Your task to perform on an android device: turn on the 24-hour format for clock Image 0: 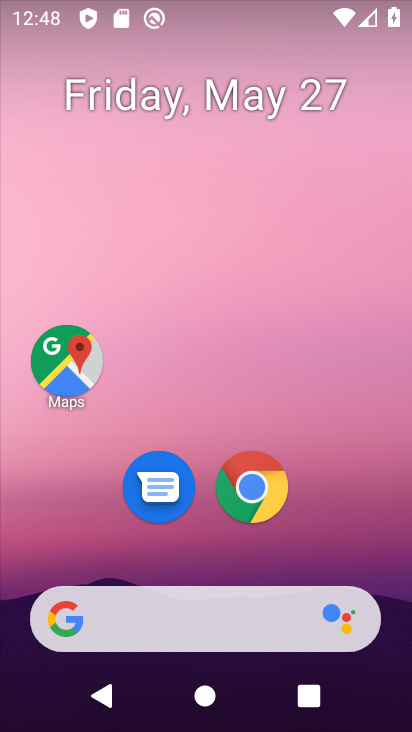
Step 0: drag from (157, 725) to (159, 98)
Your task to perform on an android device: turn on the 24-hour format for clock Image 1: 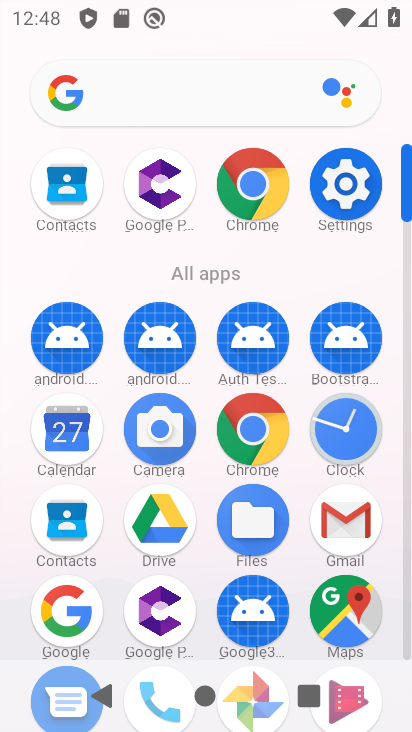
Step 1: click (342, 202)
Your task to perform on an android device: turn on the 24-hour format for clock Image 2: 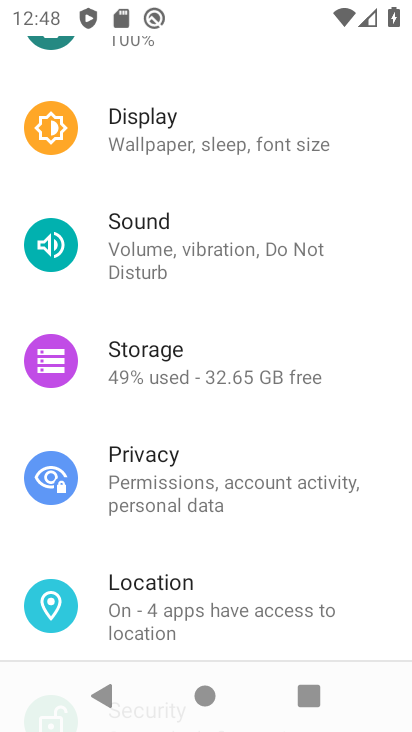
Step 2: drag from (338, 630) to (387, 94)
Your task to perform on an android device: turn on the 24-hour format for clock Image 3: 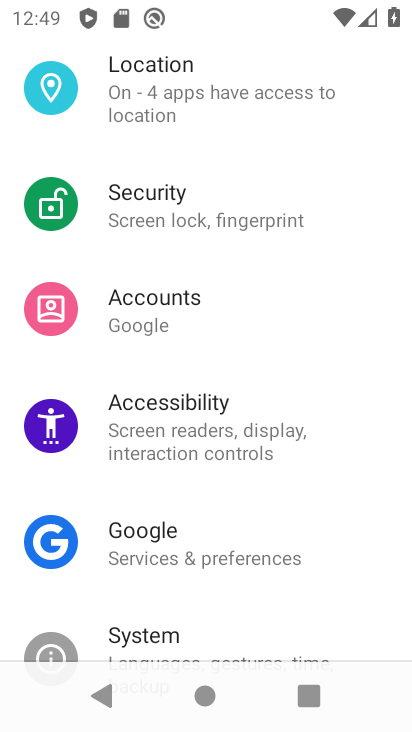
Step 3: drag from (364, 595) to (334, 324)
Your task to perform on an android device: turn on the 24-hour format for clock Image 4: 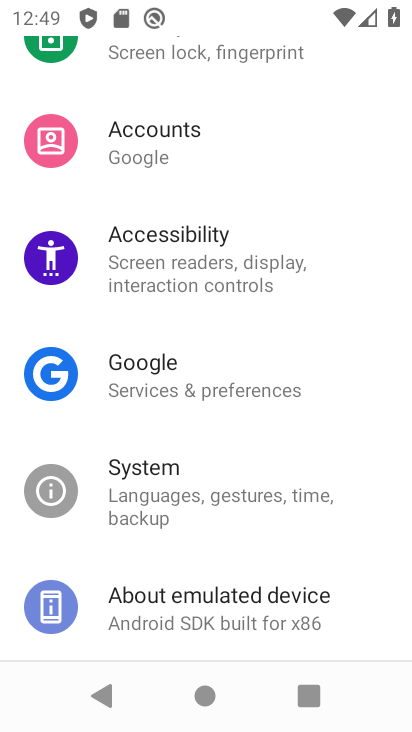
Step 4: click (196, 505)
Your task to perform on an android device: turn on the 24-hour format for clock Image 5: 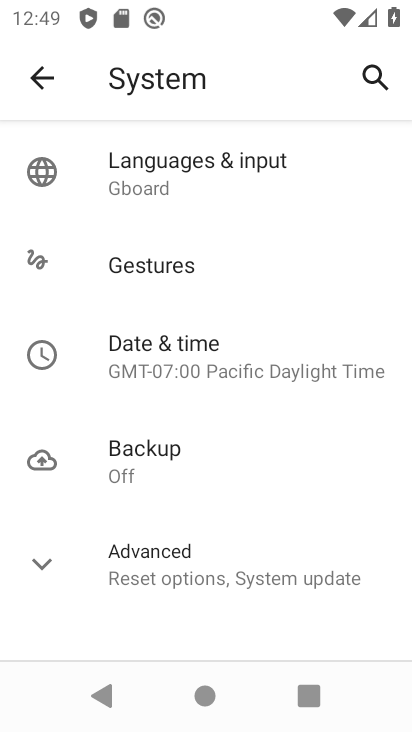
Step 5: click (165, 350)
Your task to perform on an android device: turn on the 24-hour format for clock Image 6: 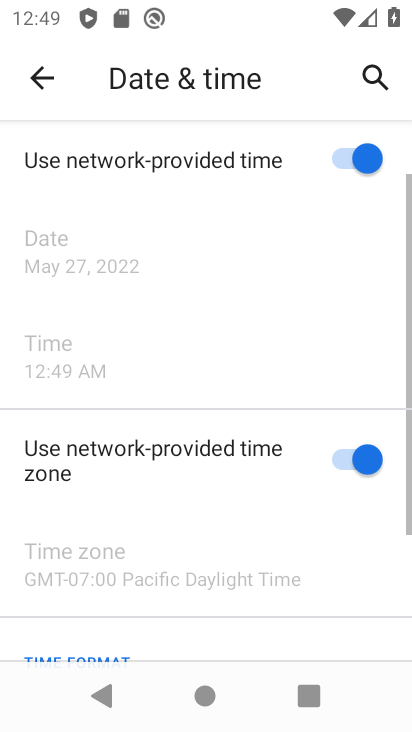
Step 6: drag from (276, 596) to (270, 206)
Your task to perform on an android device: turn on the 24-hour format for clock Image 7: 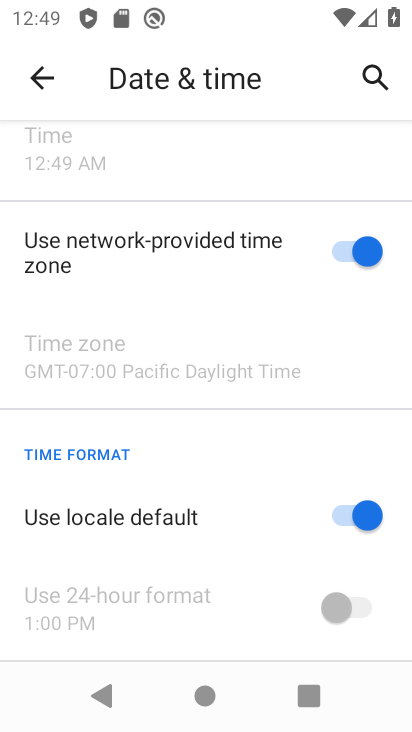
Step 7: click (355, 526)
Your task to perform on an android device: turn on the 24-hour format for clock Image 8: 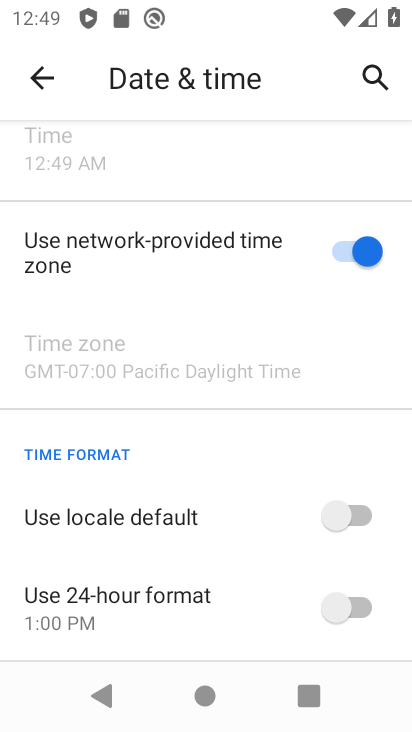
Step 8: click (353, 612)
Your task to perform on an android device: turn on the 24-hour format for clock Image 9: 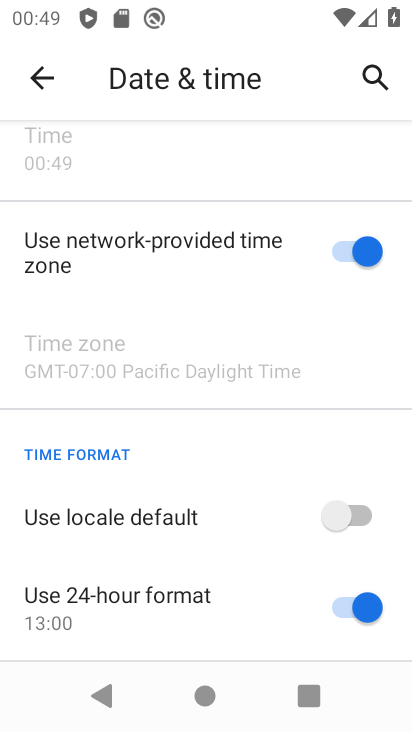
Step 9: task complete